Your task to perform on an android device: Open sound settings Image 0: 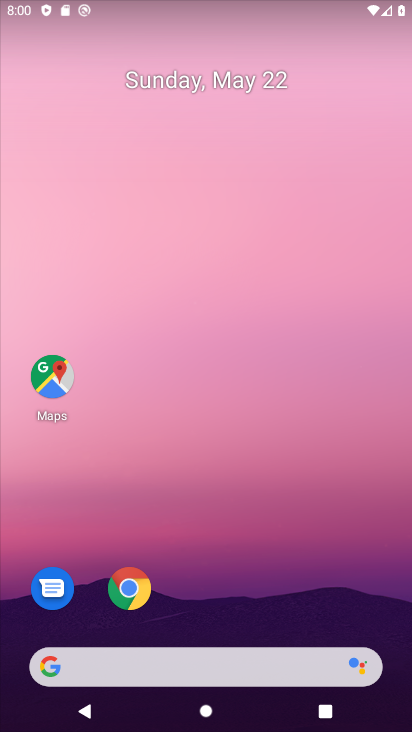
Step 0: drag from (202, 610) to (237, 155)
Your task to perform on an android device: Open sound settings Image 1: 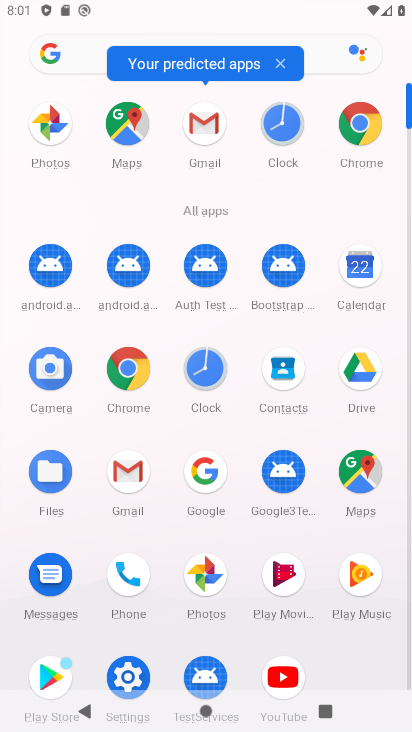
Step 1: click (125, 667)
Your task to perform on an android device: Open sound settings Image 2: 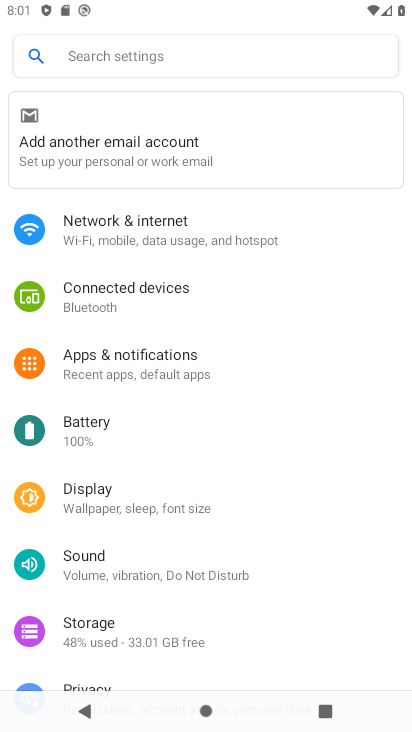
Step 2: drag from (162, 631) to (257, 278)
Your task to perform on an android device: Open sound settings Image 3: 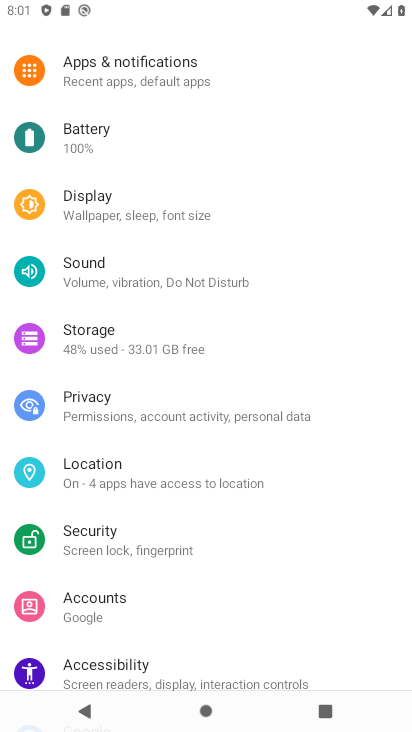
Step 3: click (136, 281)
Your task to perform on an android device: Open sound settings Image 4: 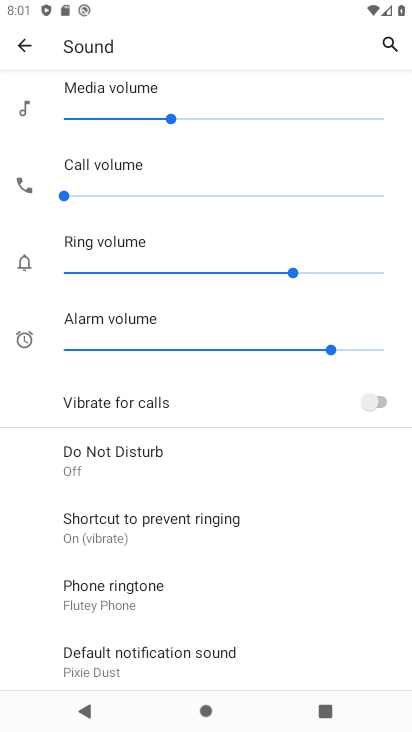
Step 4: task complete